Your task to perform on an android device: open device folders in google photos Image 0: 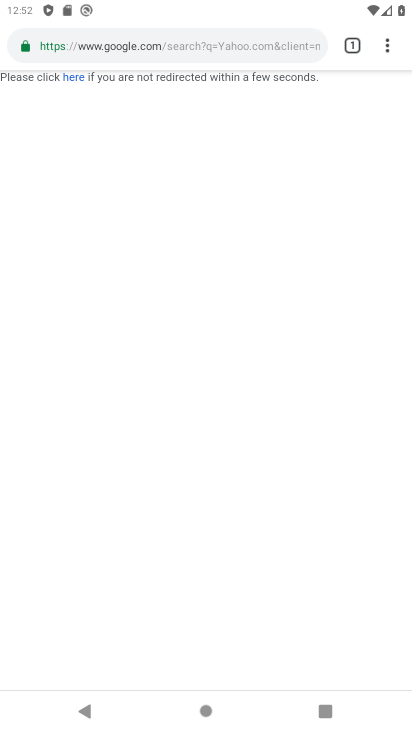
Step 0: press home button
Your task to perform on an android device: open device folders in google photos Image 1: 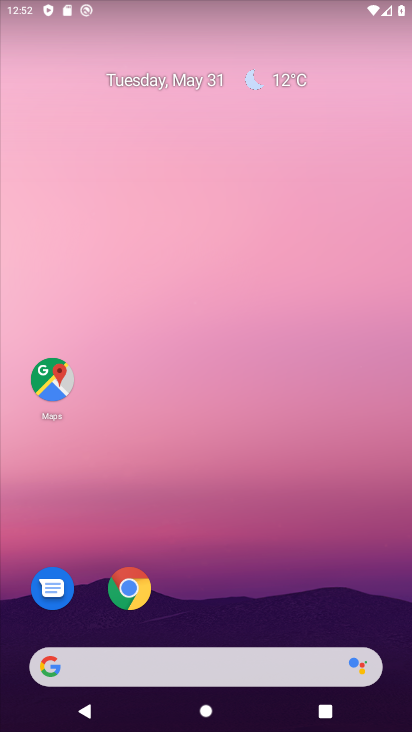
Step 1: drag from (387, 714) to (267, 136)
Your task to perform on an android device: open device folders in google photos Image 2: 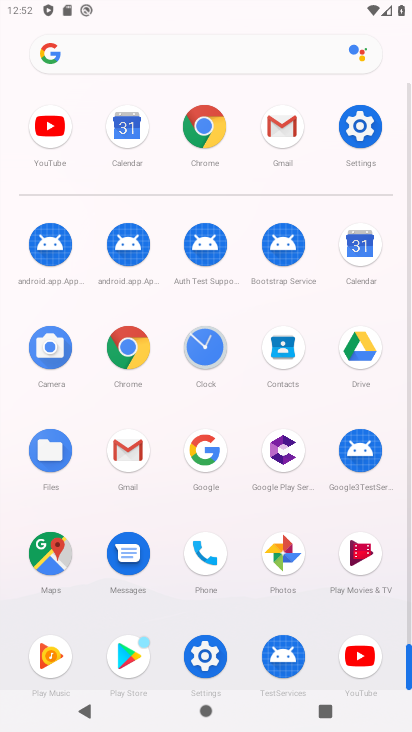
Step 2: click (279, 561)
Your task to perform on an android device: open device folders in google photos Image 3: 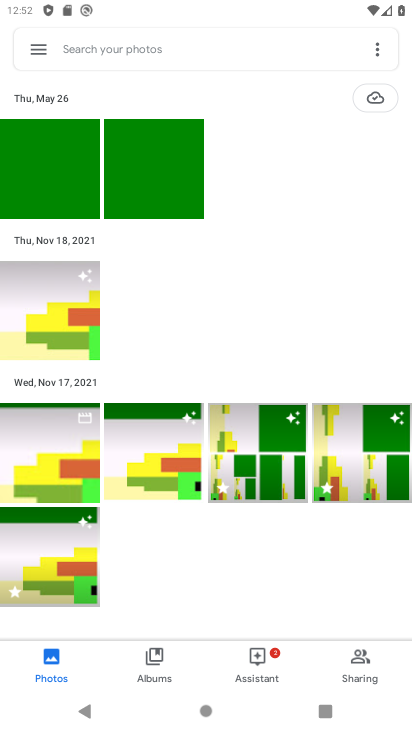
Step 3: click (39, 48)
Your task to perform on an android device: open device folders in google photos Image 4: 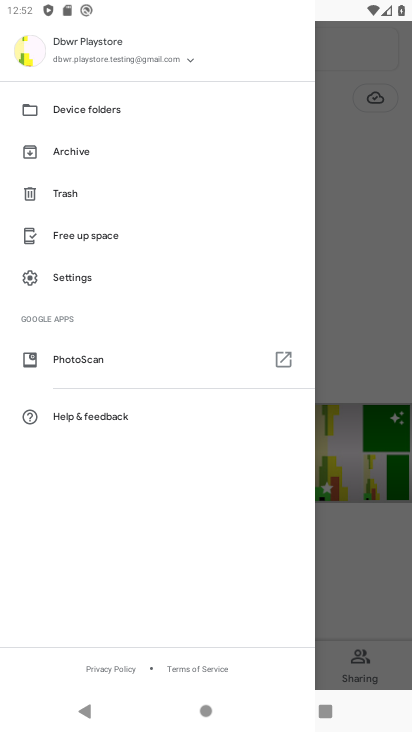
Step 4: click (65, 113)
Your task to perform on an android device: open device folders in google photos Image 5: 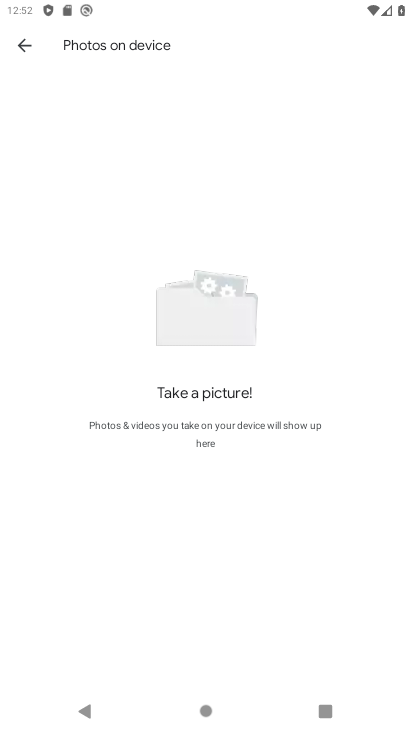
Step 5: task complete